Your task to perform on an android device: Set the phone to "Do not disturb". Image 0: 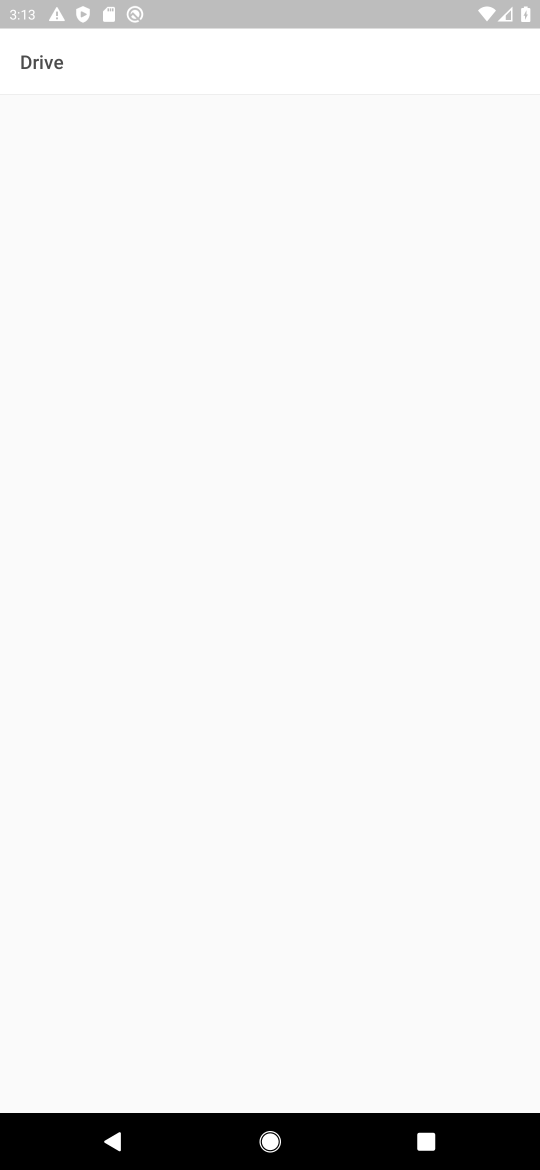
Step 0: press home button
Your task to perform on an android device: Set the phone to "Do not disturb". Image 1: 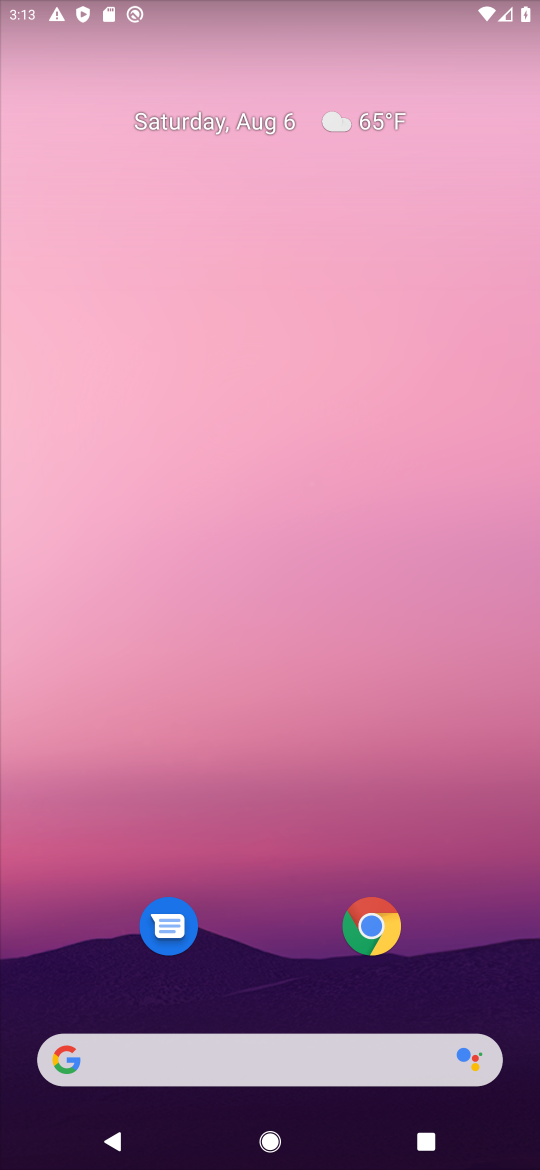
Step 1: drag from (266, 800) to (189, 255)
Your task to perform on an android device: Set the phone to "Do not disturb". Image 2: 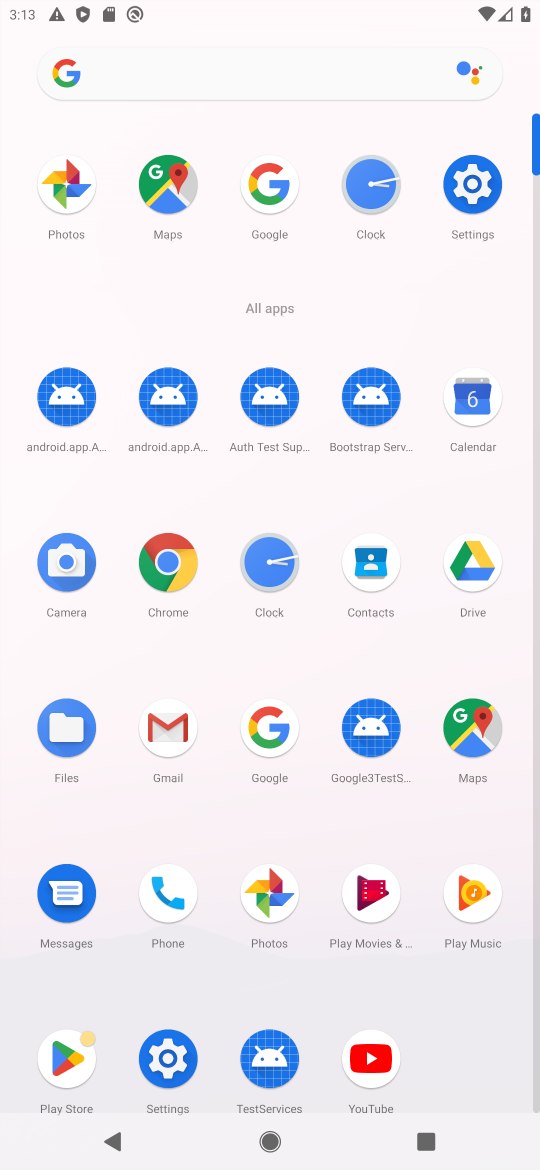
Step 2: click (452, 206)
Your task to perform on an android device: Set the phone to "Do not disturb". Image 3: 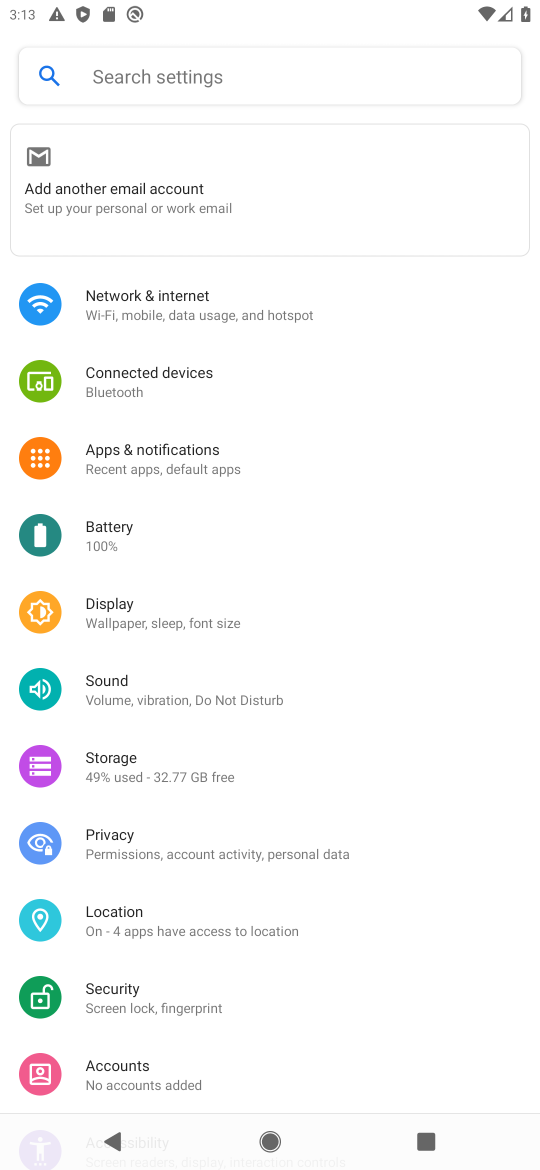
Step 3: click (149, 695)
Your task to perform on an android device: Set the phone to "Do not disturb". Image 4: 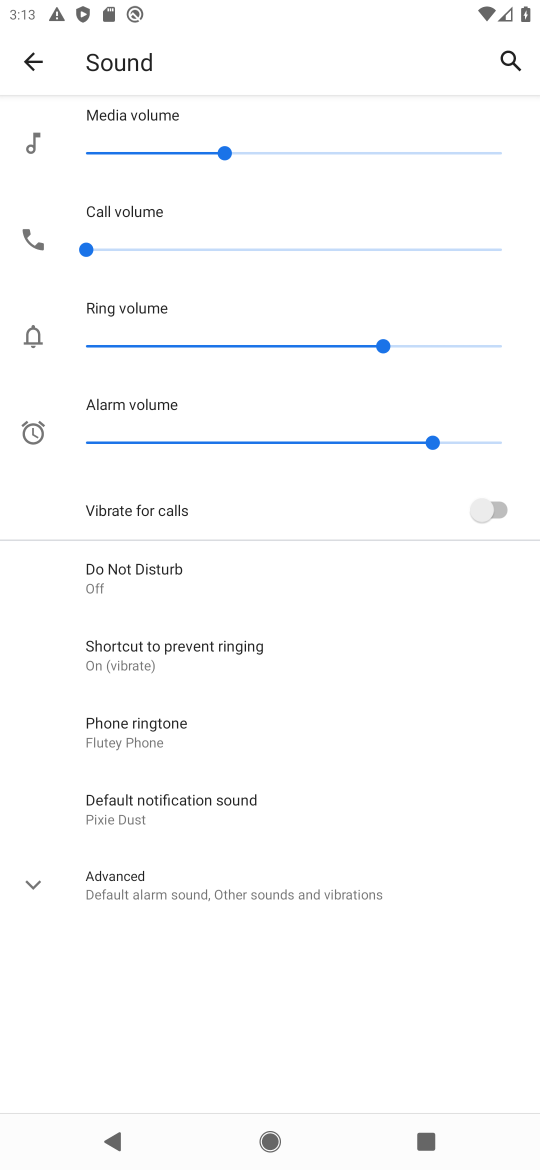
Step 4: click (163, 590)
Your task to perform on an android device: Set the phone to "Do not disturb". Image 5: 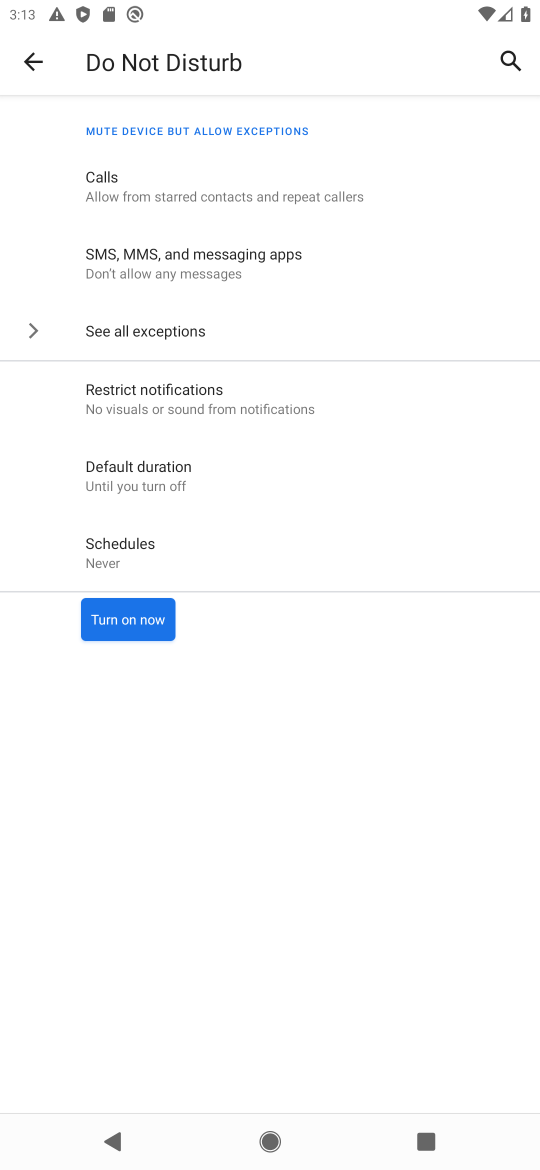
Step 5: click (125, 610)
Your task to perform on an android device: Set the phone to "Do not disturb". Image 6: 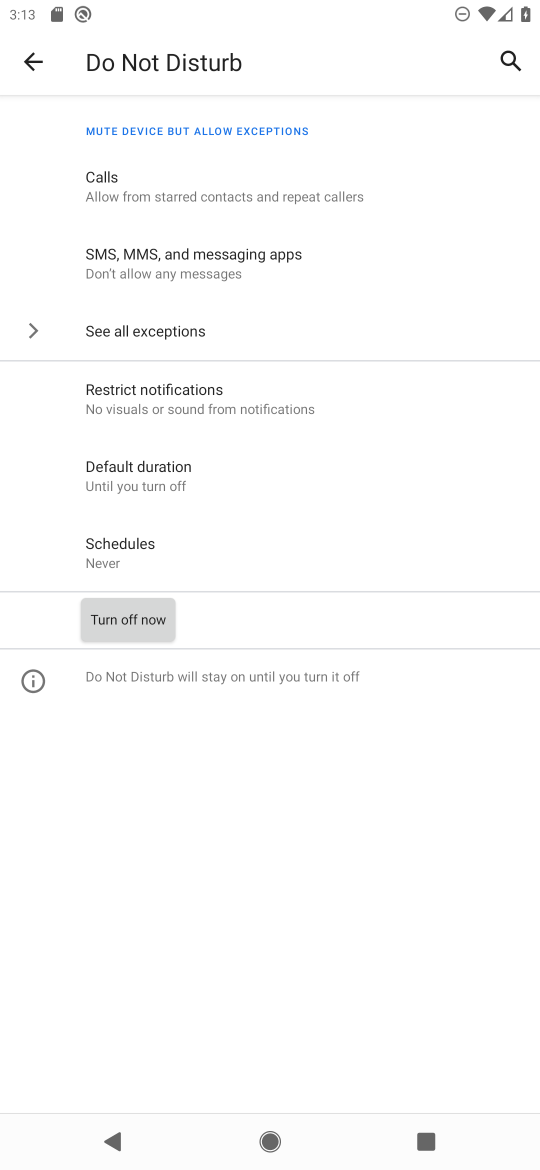
Step 6: task complete